Your task to perform on an android device: change keyboard looks Image 0: 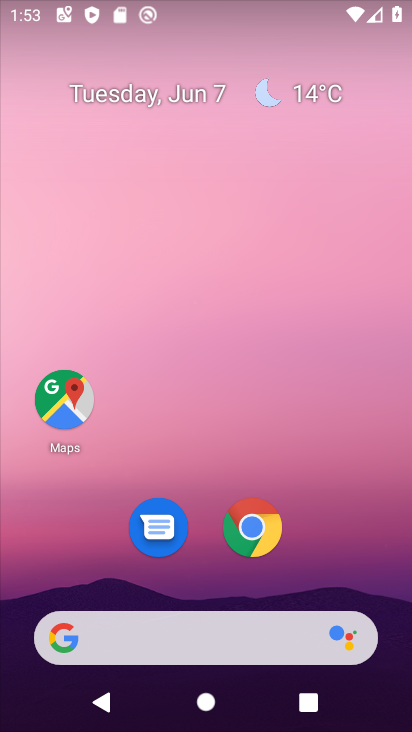
Step 0: drag from (378, 574) to (232, 154)
Your task to perform on an android device: change keyboard looks Image 1: 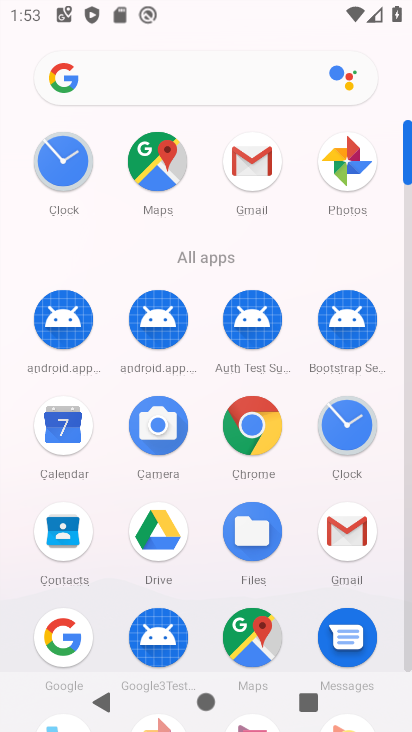
Step 1: click (409, 668)
Your task to perform on an android device: change keyboard looks Image 2: 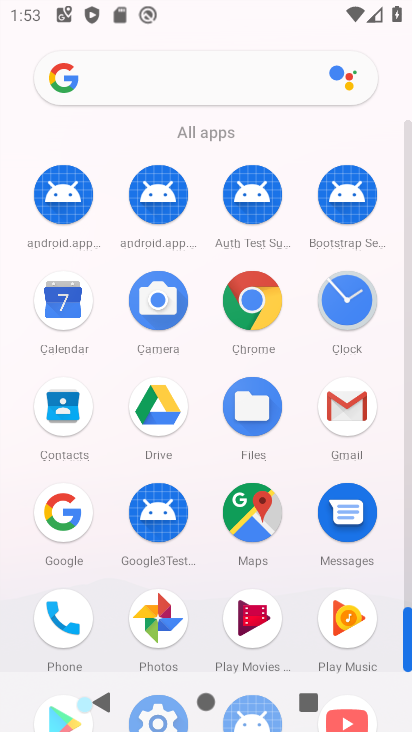
Step 2: drag from (390, 606) to (375, 413)
Your task to perform on an android device: change keyboard looks Image 3: 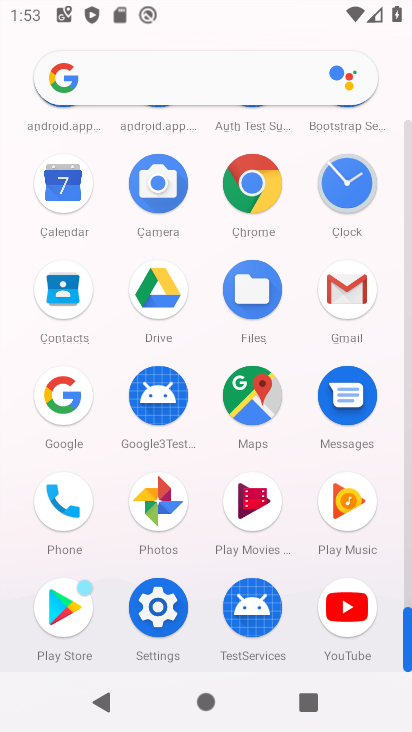
Step 3: click (170, 598)
Your task to perform on an android device: change keyboard looks Image 4: 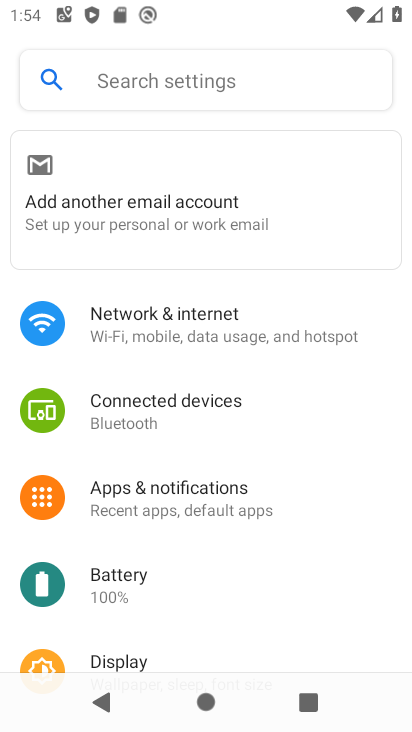
Step 4: drag from (253, 625) to (216, 188)
Your task to perform on an android device: change keyboard looks Image 5: 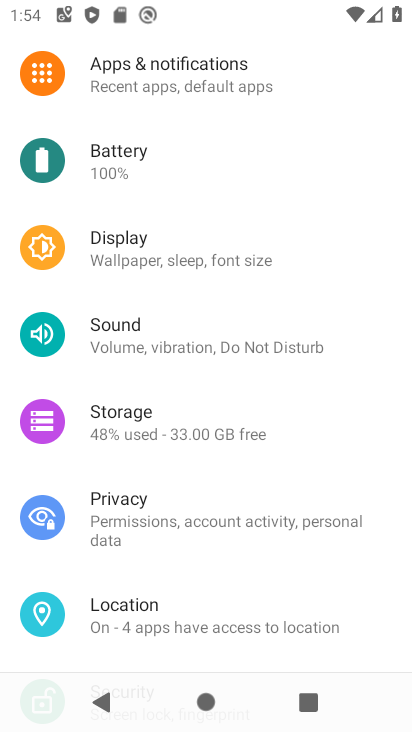
Step 5: drag from (237, 546) to (210, 226)
Your task to perform on an android device: change keyboard looks Image 6: 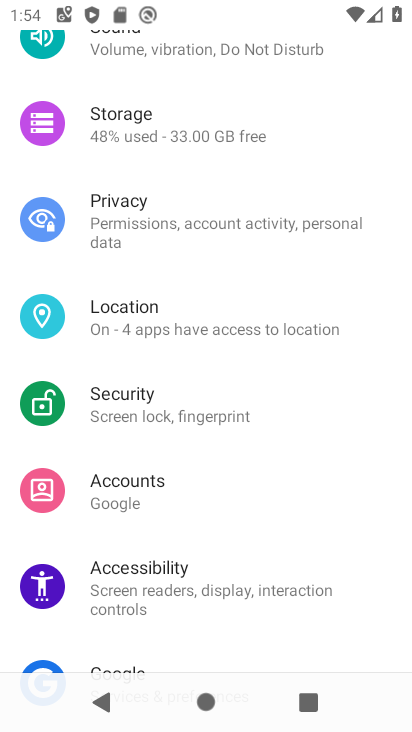
Step 6: drag from (216, 620) to (177, 361)
Your task to perform on an android device: change keyboard looks Image 7: 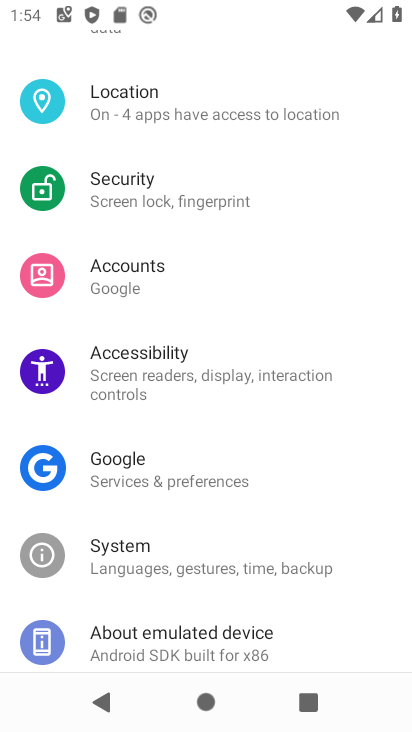
Step 7: click (216, 568)
Your task to perform on an android device: change keyboard looks Image 8: 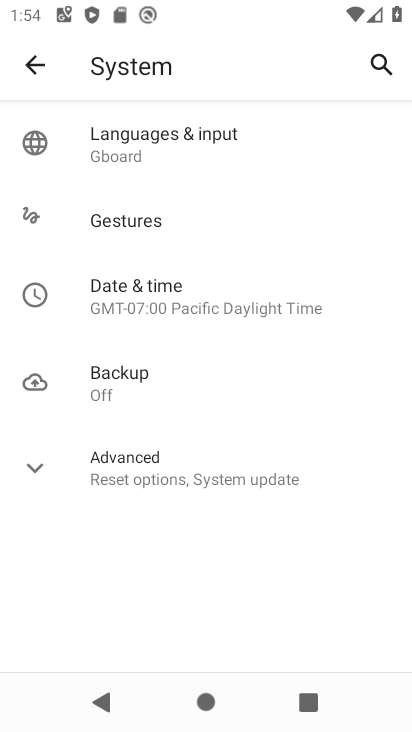
Step 8: click (197, 134)
Your task to perform on an android device: change keyboard looks Image 9: 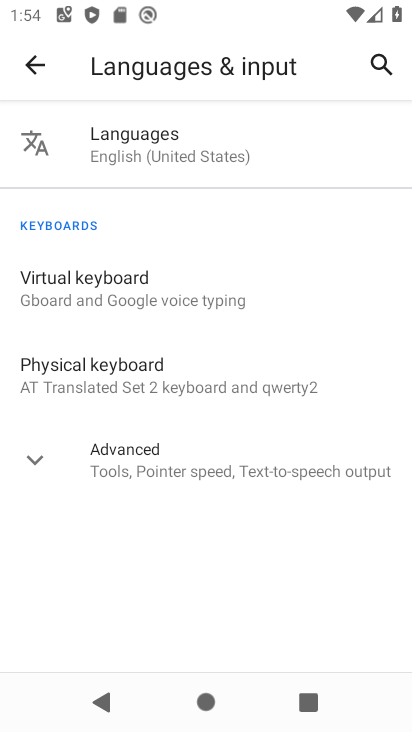
Step 9: click (165, 307)
Your task to perform on an android device: change keyboard looks Image 10: 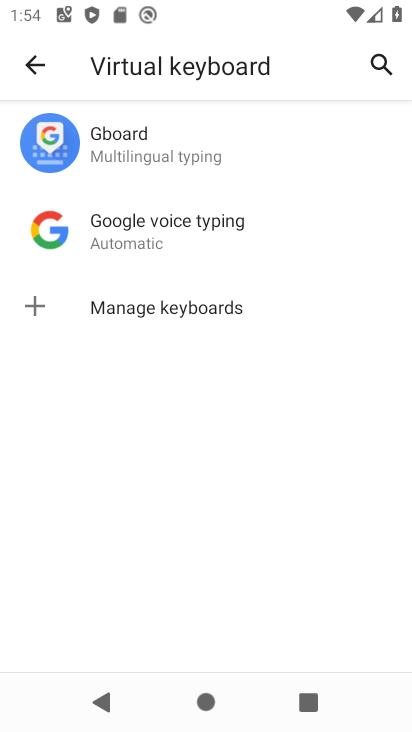
Step 10: click (184, 134)
Your task to perform on an android device: change keyboard looks Image 11: 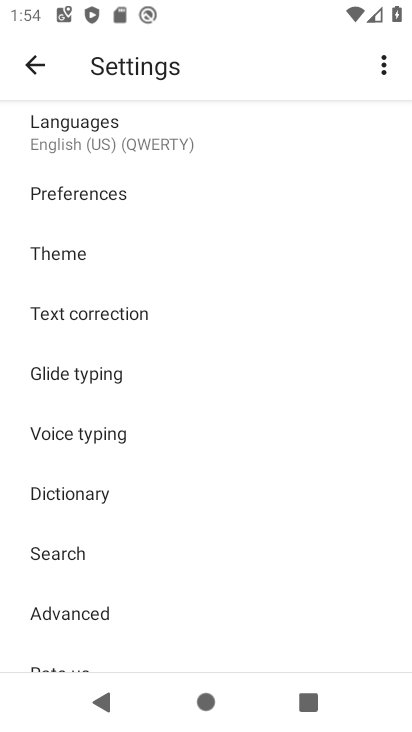
Step 11: click (161, 248)
Your task to perform on an android device: change keyboard looks Image 12: 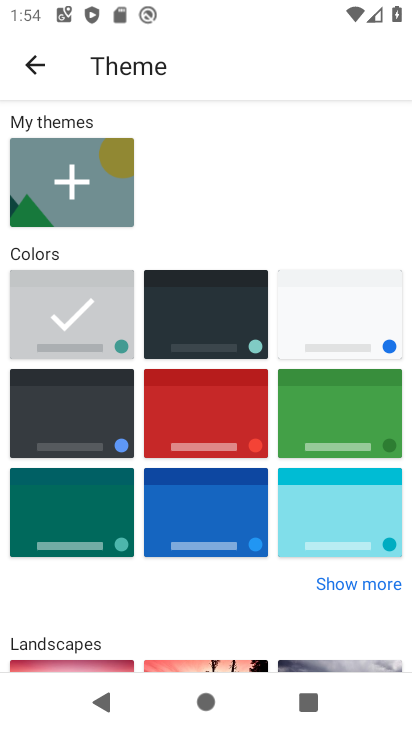
Step 12: click (187, 300)
Your task to perform on an android device: change keyboard looks Image 13: 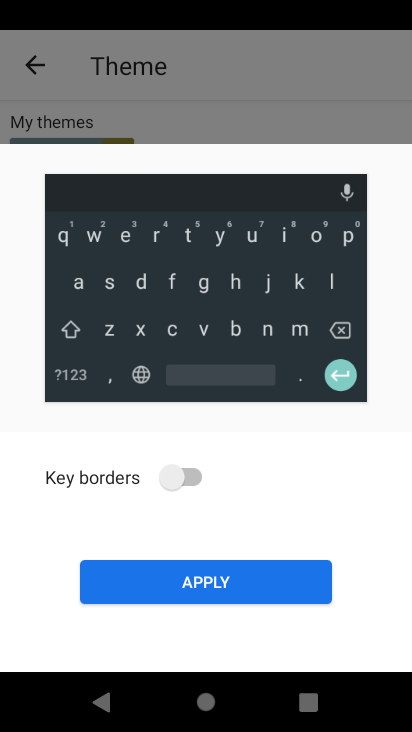
Step 13: click (256, 576)
Your task to perform on an android device: change keyboard looks Image 14: 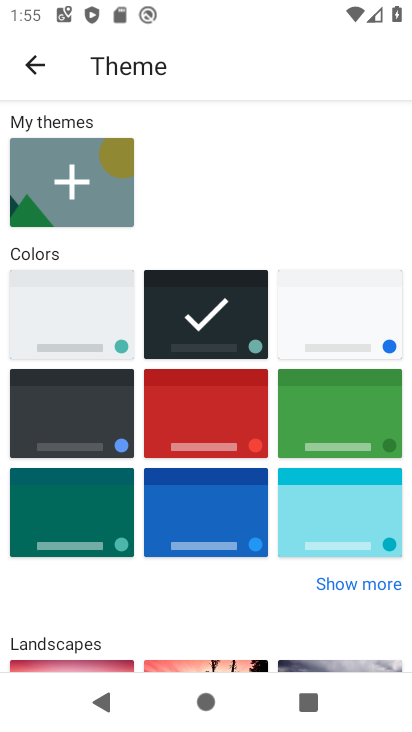
Step 14: task complete